Your task to perform on an android device: change notification settings in the gmail app Image 0: 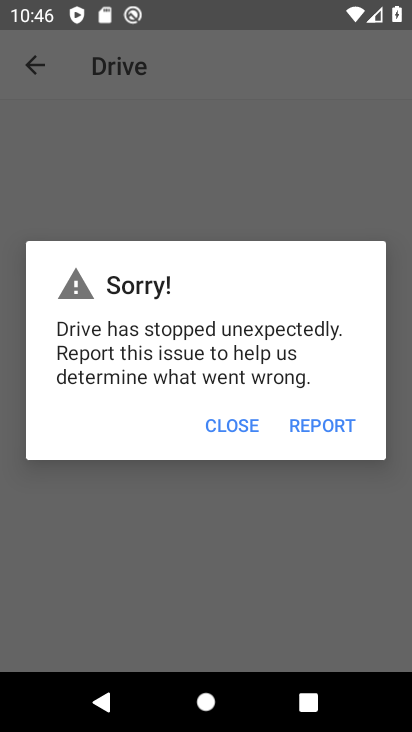
Step 0: drag from (358, 572) to (351, 494)
Your task to perform on an android device: change notification settings in the gmail app Image 1: 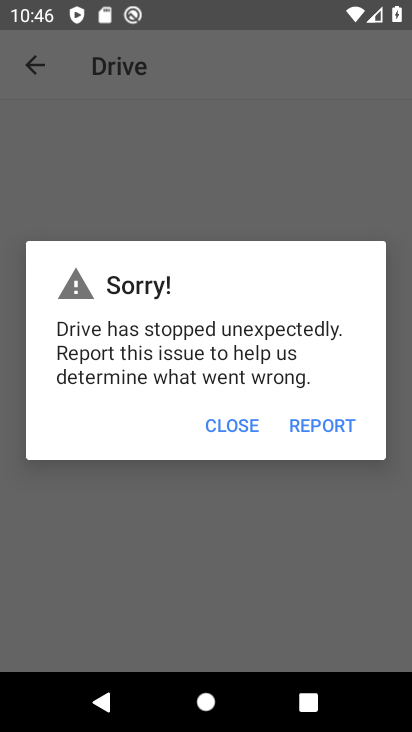
Step 1: press home button
Your task to perform on an android device: change notification settings in the gmail app Image 2: 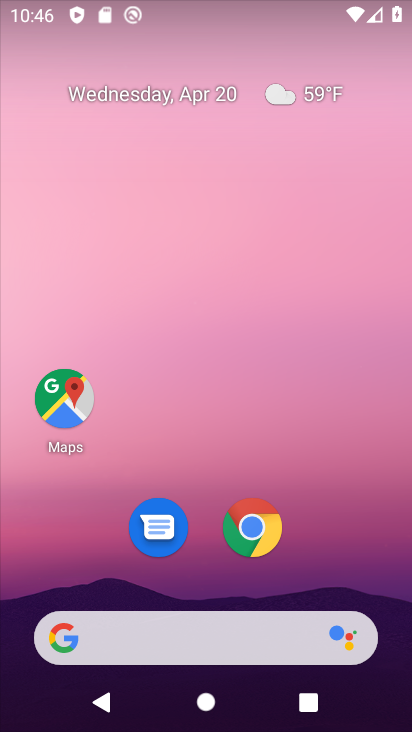
Step 2: drag from (375, 564) to (398, 122)
Your task to perform on an android device: change notification settings in the gmail app Image 3: 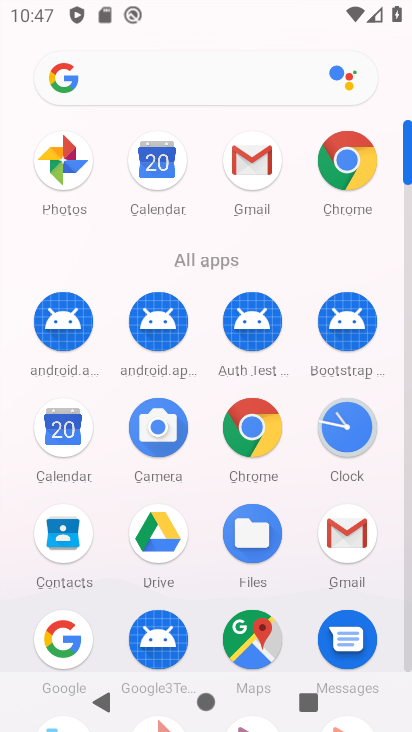
Step 3: click (337, 548)
Your task to perform on an android device: change notification settings in the gmail app Image 4: 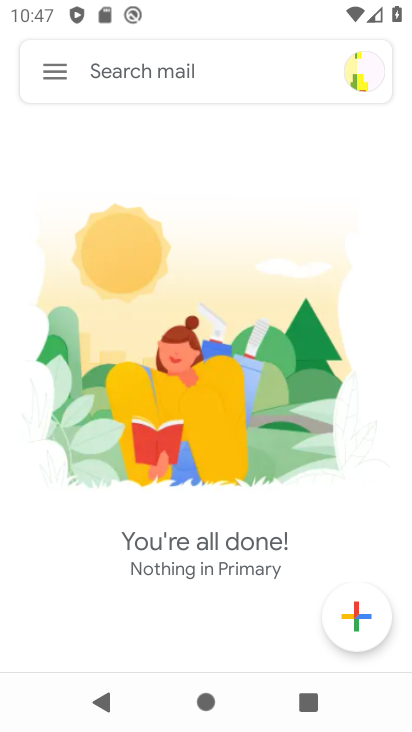
Step 4: click (54, 73)
Your task to perform on an android device: change notification settings in the gmail app Image 5: 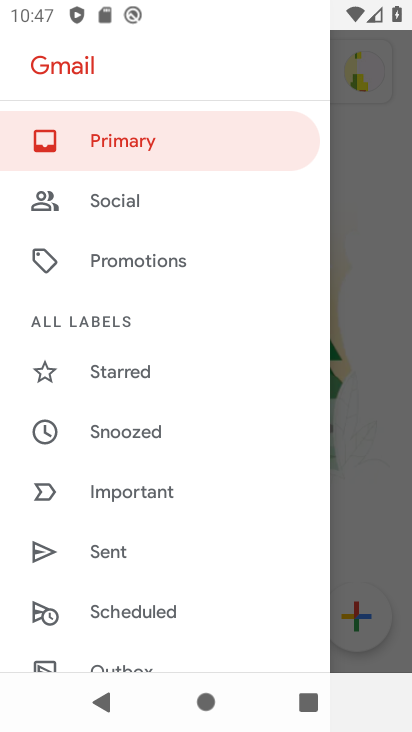
Step 5: drag from (169, 650) to (273, 236)
Your task to perform on an android device: change notification settings in the gmail app Image 6: 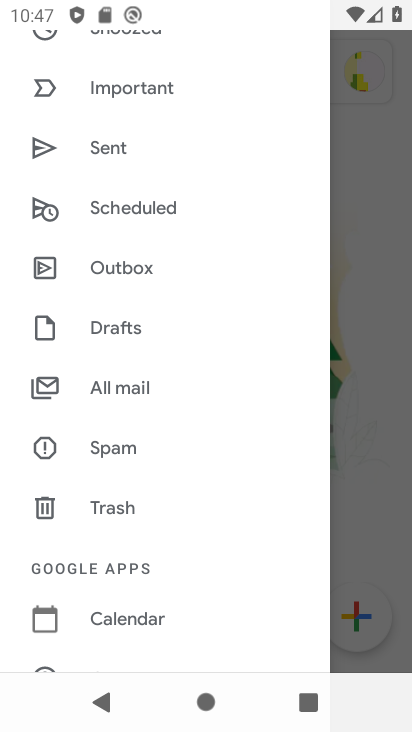
Step 6: drag from (191, 626) to (277, 218)
Your task to perform on an android device: change notification settings in the gmail app Image 7: 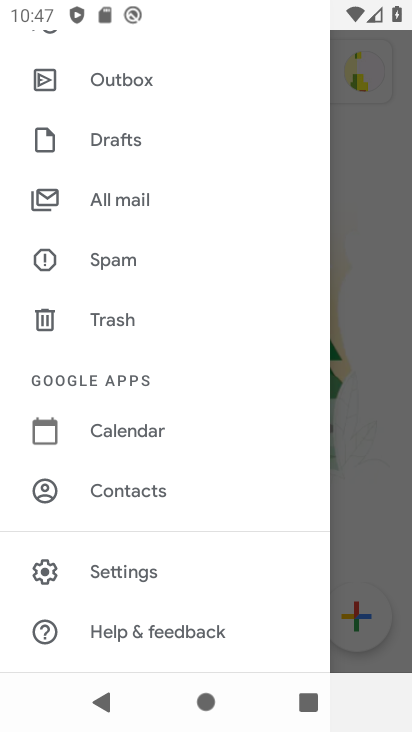
Step 7: click (149, 566)
Your task to perform on an android device: change notification settings in the gmail app Image 8: 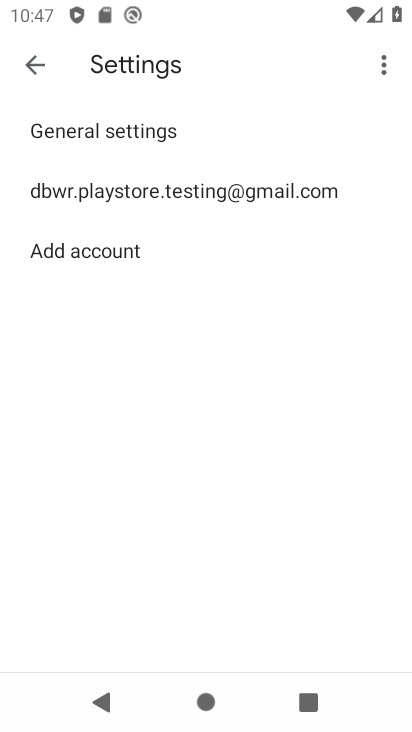
Step 8: click (253, 187)
Your task to perform on an android device: change notification settings in the gmail app Image 9: 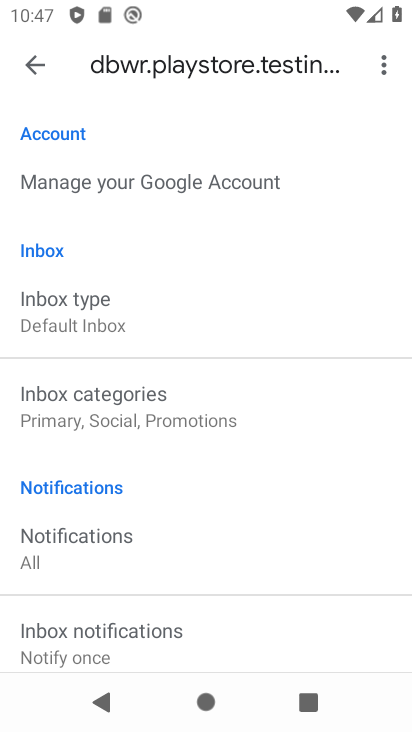
Step 9: drag from (259, 598) to (283, 309)
Your task to perform on an android device: change notification settings in the gmail app Image 10: 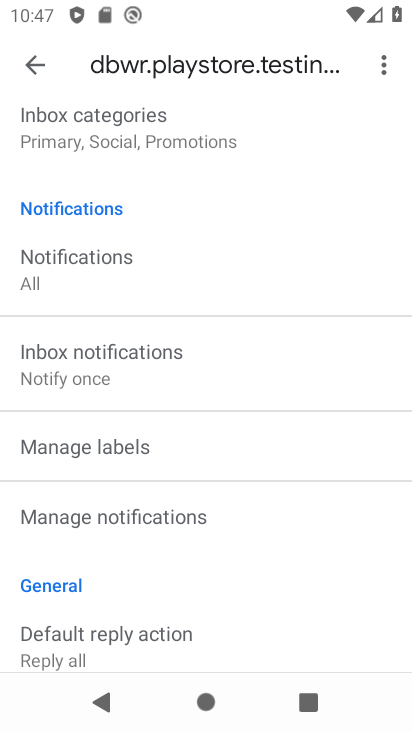
Step 10: drag from (285, 554) to (282, 314)
Your task to perform on an android device: change notification settings in the gmail app Image 11: 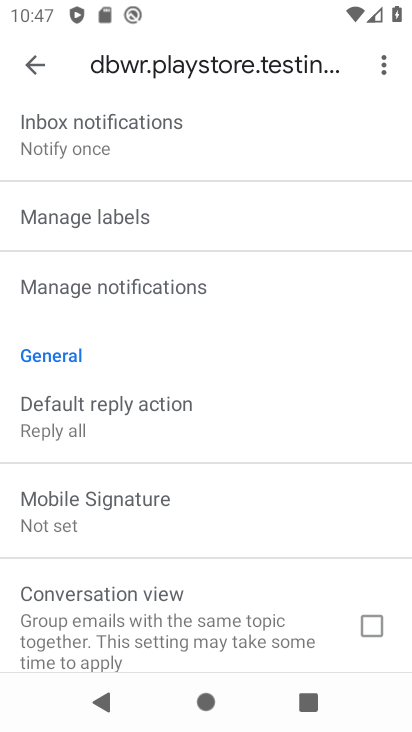
Step 11: drag from (236, 169) to (281, 613)
Your task to perform on an android device: change notification settings in the gmail app Image 12: 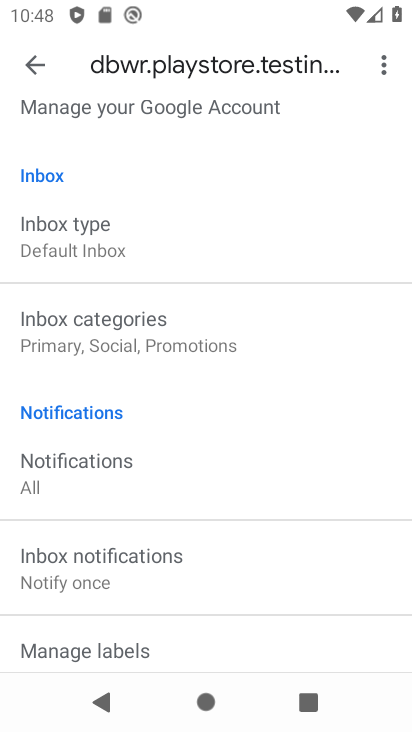
Step 12: click (104, 442)
Your task to perform on an android device: change notification settings in the gmail app Image 13: 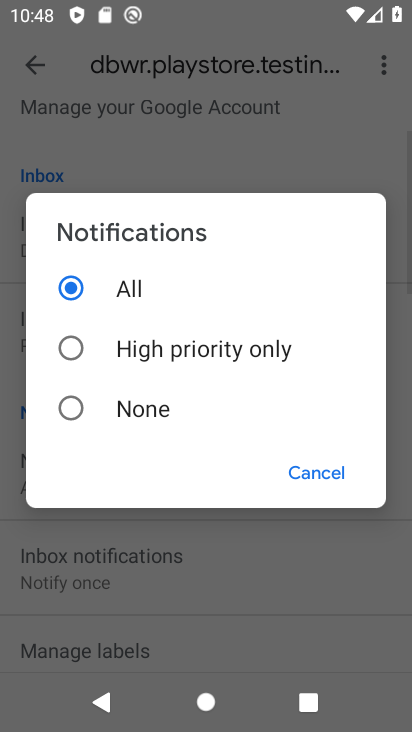
Step 13: click (122, 411)
Your task to perform on an android device: change notification settings in the gmail app Image 14: 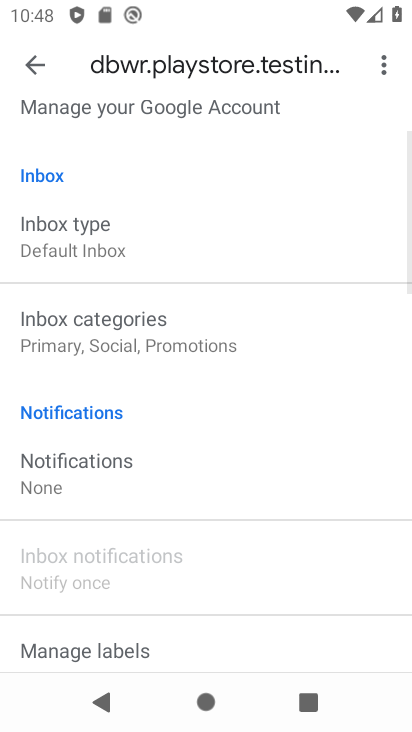
Step 14: task complete